Your task to perform on an android device: Open Google Chrome and click the shortcut for Amazon.com Image 0: 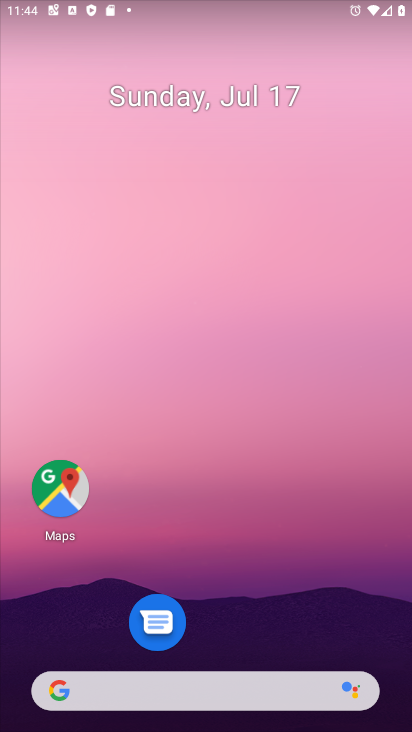
Step 0: drag from (211, 302) to (226, 177)
Your task to perform on an android device: Open Google Chrome and click the shortcut for Amazon.com Image 1: 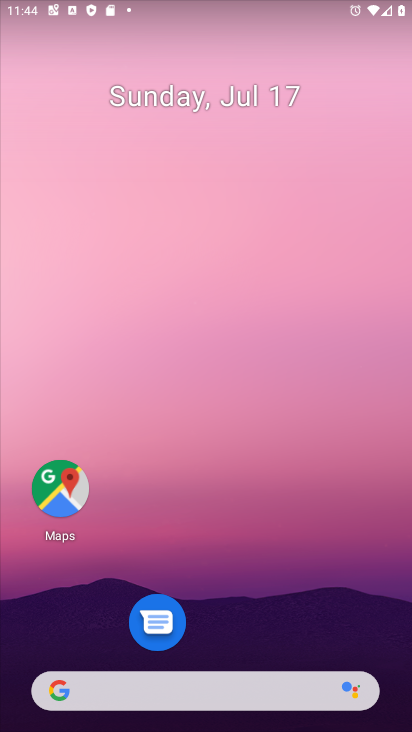
Step 1: drag from (242, 724) to (220, 16)
Your task to perform on an android device: Open Google Chrome and click the shortcut for Amazon.com Image 2: 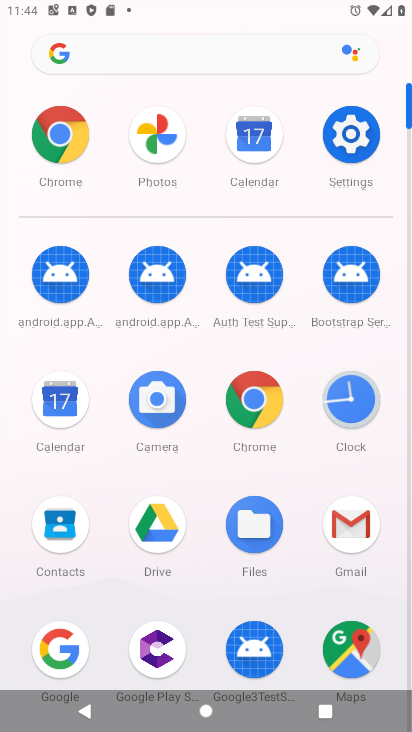
Step 2: click (44, 126)
Your task to perform on an android device: Open Google Chrome and click the shortcut for Amazon.com Image 3: 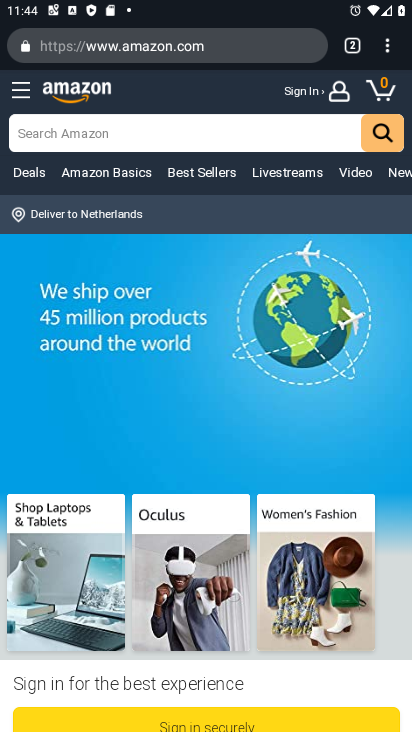
Step 3: click (387, 38)
Your task to perform on an android device: Open Google Chrome and click the shortcut for Amazon.com Image 4: 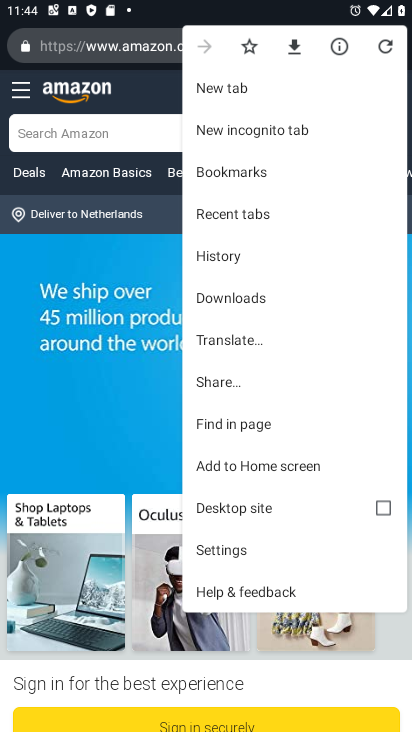
Step 4: click (249, 92)
Your task to perform on an android device: Open Google Chrome and click the shortcut for Amazon.com Image 5: 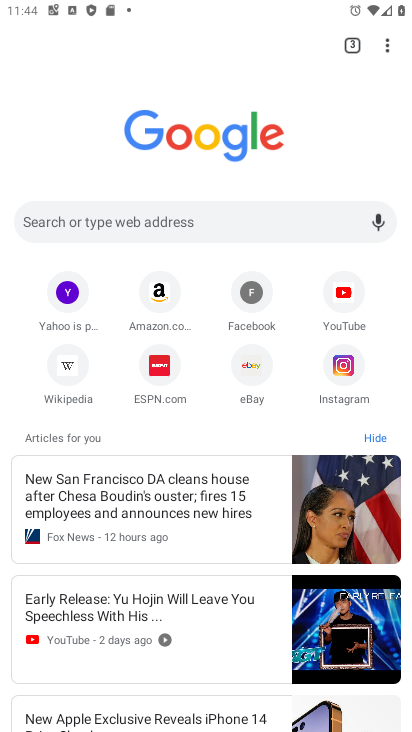
Step 5: click (163, 291)
Your task to perform on an android device: Open Google Chrome and click the shortcut for Amazon.com Image 6: 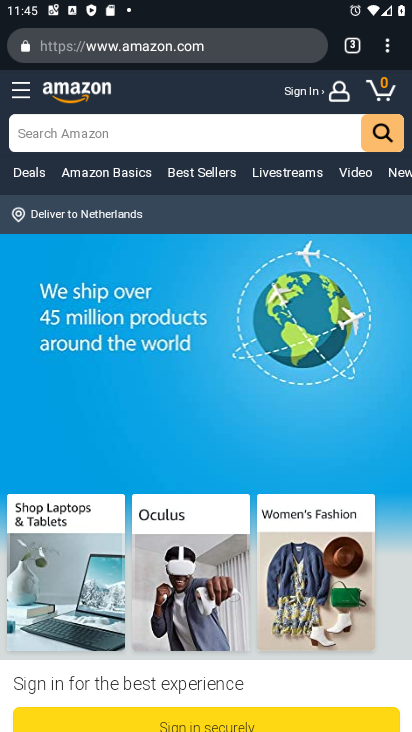
Step 6: task complete